Your task to perform on an android device: clear history in the chrome app Image 0: 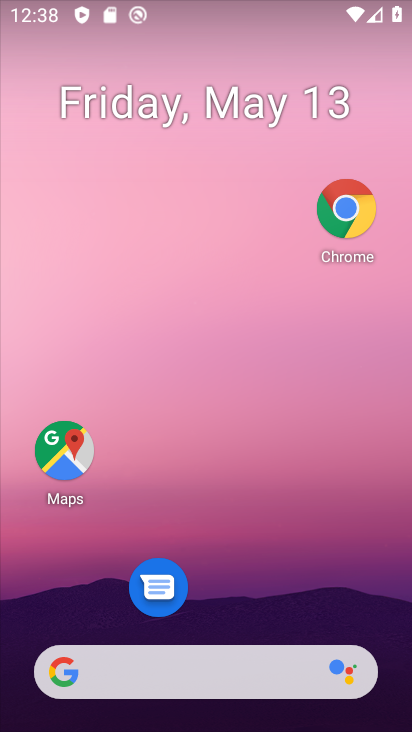
Step 0: click (352, 212)
Your task to perform on an android device: clear history in the chrome app Image 1: 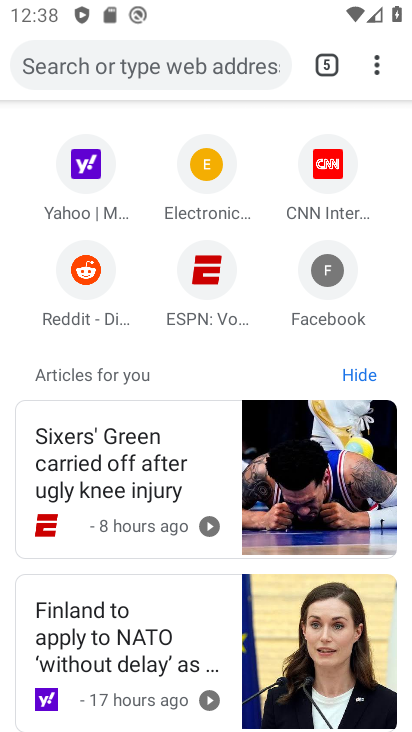
Step 1: drag from (375, 58) to (144, 357)
Your task to perform on an android device: clear history in the chrome app Image 2: 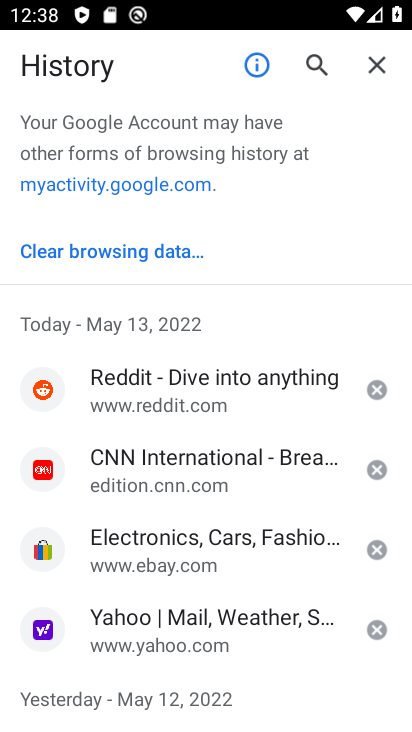
Step 2: click (115, 250)
Your task to perform on an android device: clear history in the chrome app Image 3: 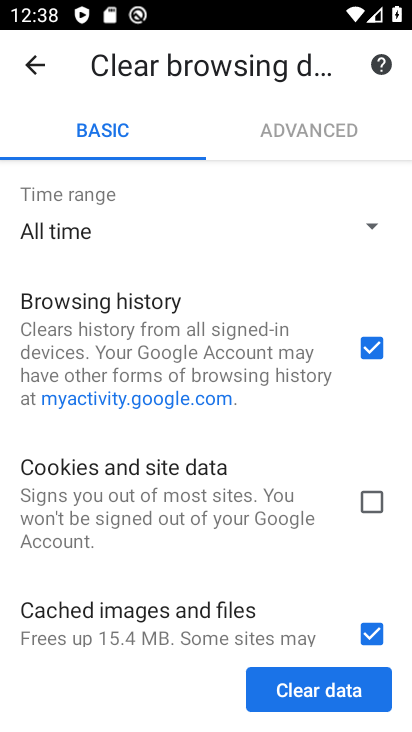
Step 3: click (295, 702)
Your task to perform on an android device: clear history in the chrome app Image 4: 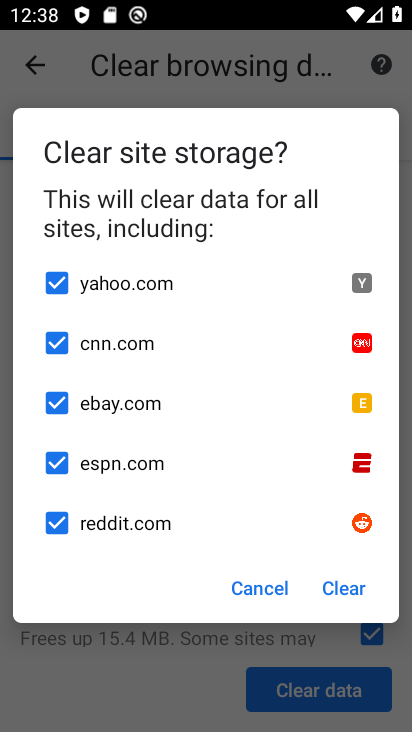
Step 4: click (326, 592)
Your task to perform on an android device: clear history in the chrome app Image 5: 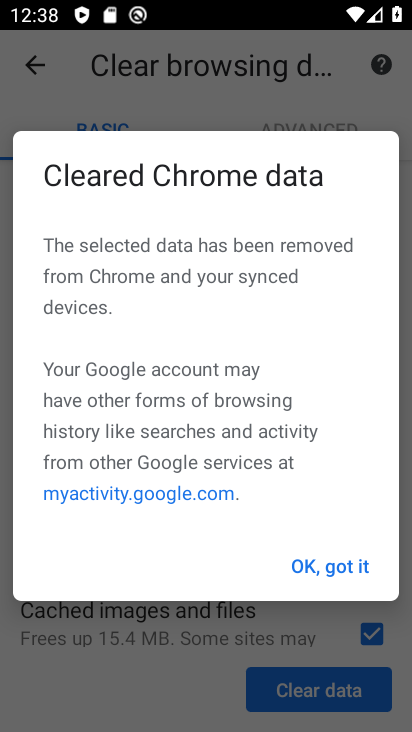
Step 5: task complete